Your task to perform on an android device: open app "Microsoft Outlook" Image 0: 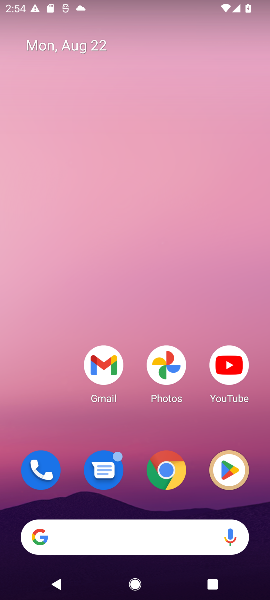
Step 0: drag from (92, 511) to (109, 62)
Your task to perform on an android device: open app "Microsoft Outlook" Image 1: 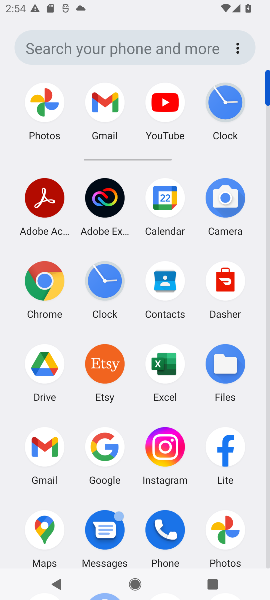
Step 1: drag from (127, 450) to (175, 25)
Your task to perform on an android device: open app "Microsoft Outlook" Image 2: 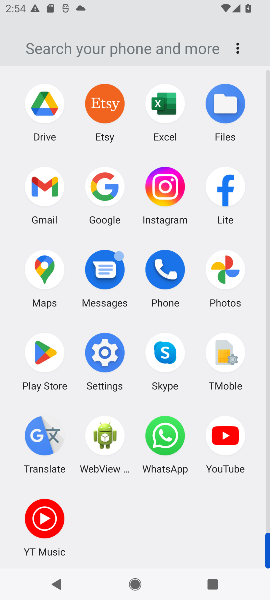
Step 2: click (40, 353)
Your task to perform on an android device: open app "Microsoft Outlook" Image 3: 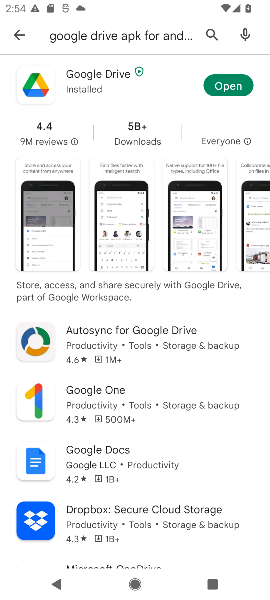
Step 3: click (13, 29)
Your task to perform on an android device: open app "Microsoft Outlook" Image 4: 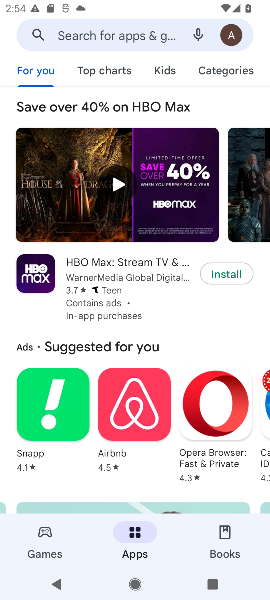
Step 4: click (98, 29)
Your task to perform on an android device: open app "Microsoft Outlook" Image 5: 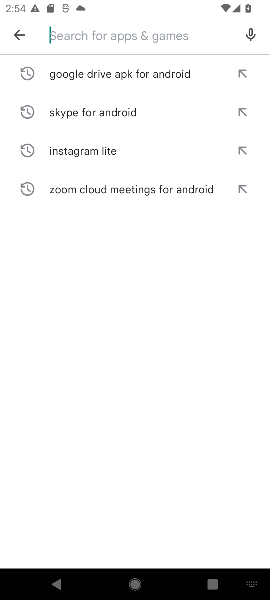
Step 5: click (70, 34)
Your task to perform on an android device: open app "Microsoft Outlook" Image 6: 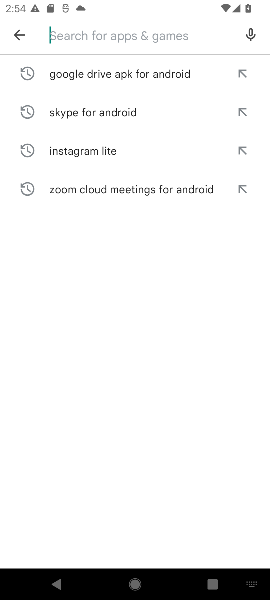
Step 6: type "Microsoft Outlook "
Your task to perform on an android device: open app "Microsoft Outlook" Image 7: 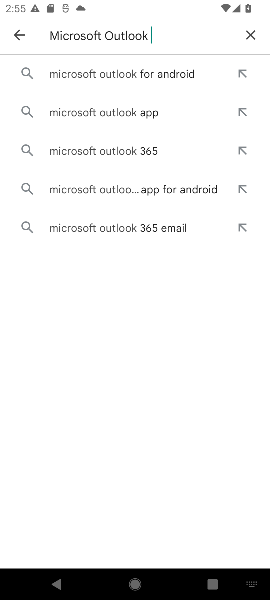
Step 7: click (146, 71)
Your task to perform on an android device: open app "Microsoft Outlook" Image 8: 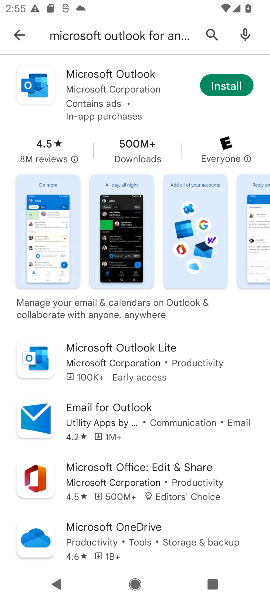
Step 8: click (227, 84)
Your task to perform on an android device: open app "Microsoft Outlook" Image 9: 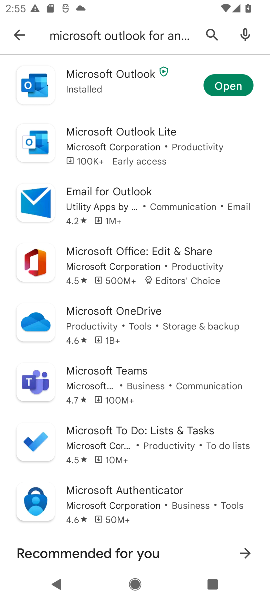
Step 9: click (230, 79)
Your task to perform on an android device: open app "Microsoft Outlook" Image 10: 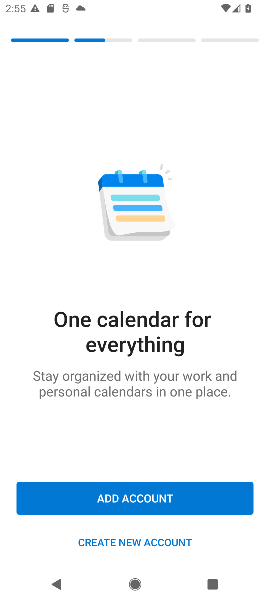
Step 10: task complete